Your task to perform on an android device: turn off notifications in google photos Image 0: 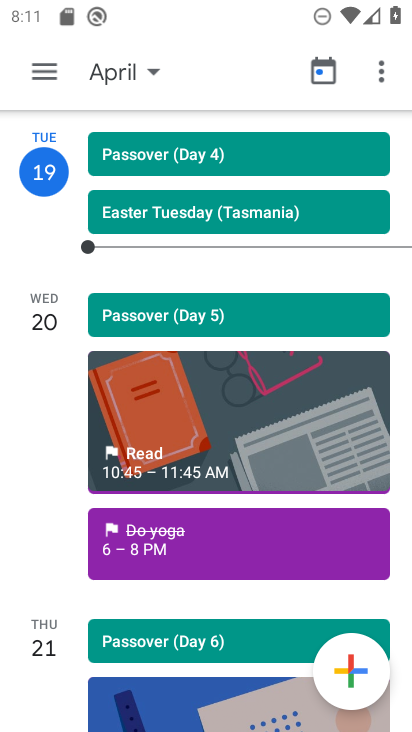
Step 0: press home button
Your task to perform on an android device: turn off notifications in google photos Image 1: 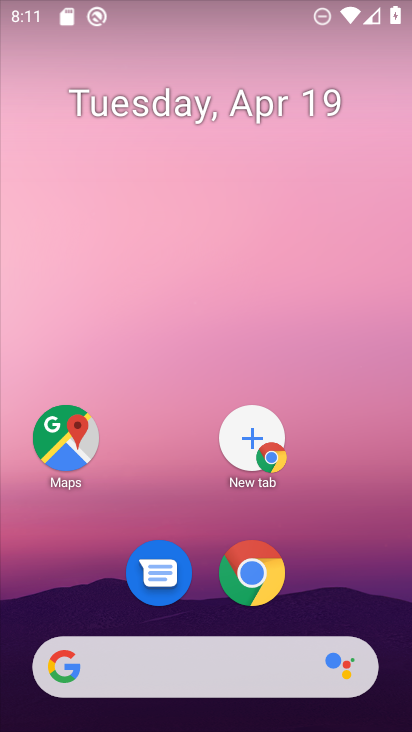
Step 1: drag from (198, 531) to (250, 95)
Your task to perform on an android device: turn off notifications in google photos Image 2: 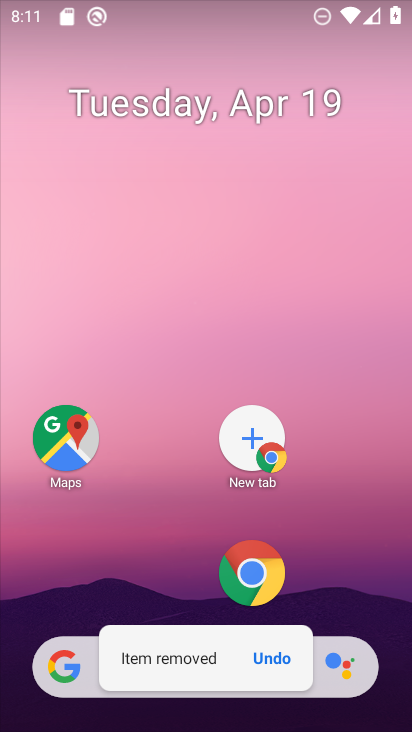
Step 2: drag from (137, 558) to (188, 27)
Your task to perform on an android device: turn off notifications in google photos Image 3: 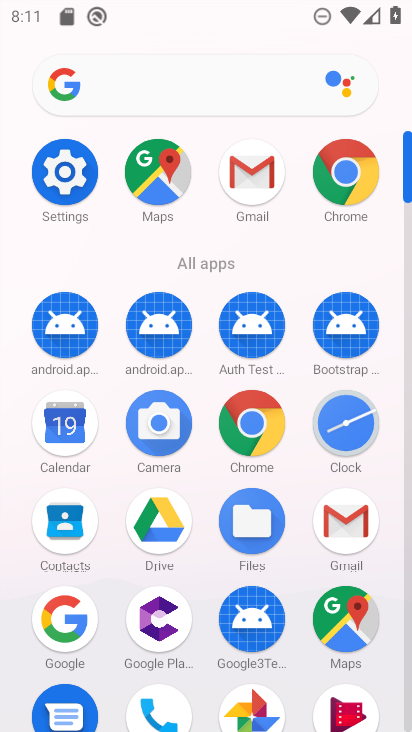
Step 3: drag from (234, 16) to (219, 411)
Your task to perform on an android device: turn off notifications in google photos Image 4: 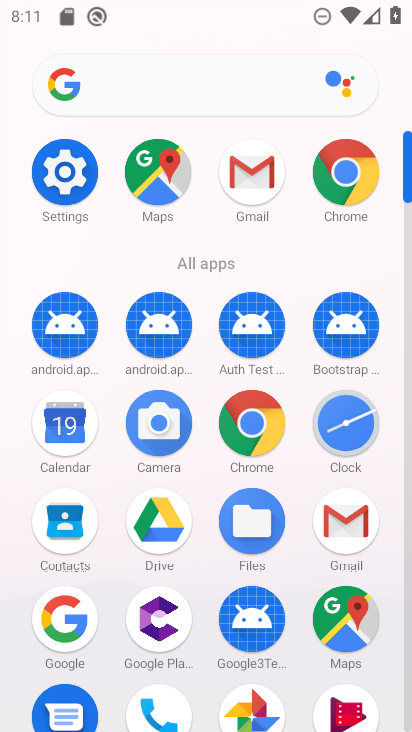
Step 4: drag from (204, 8) to (268, 366)
Your task to perform on an android device: turn off notifications in google photos Image 5: 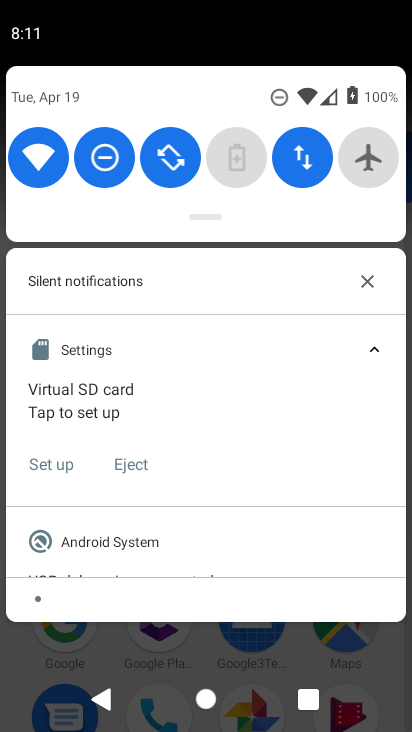
Step 5: drag from (238, 97) to (269, 237)
Your task to perform on an android device: turn off notifications in google photos Image 6: 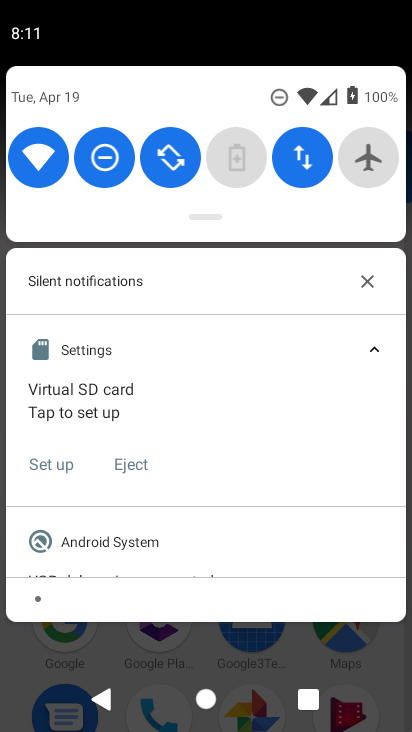
Step 6: drag from (205, 88) to (221, 554)
Your task to perform on an android device: turn off notifications in google photos Image 7: 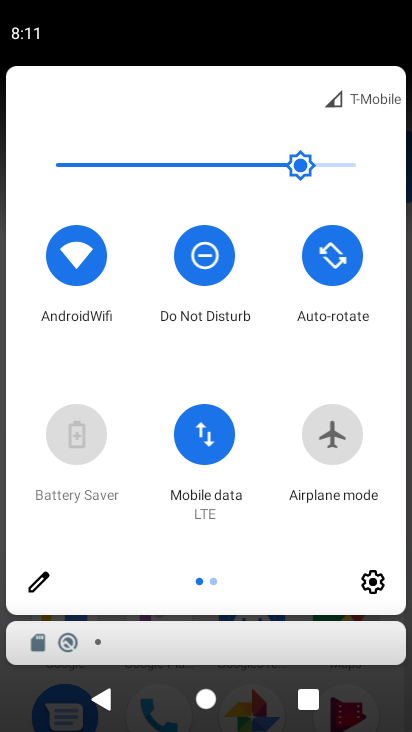
Step 7: click (390, 572)
Your task to perform on an android device: turn off notifications in google photos Image 8: 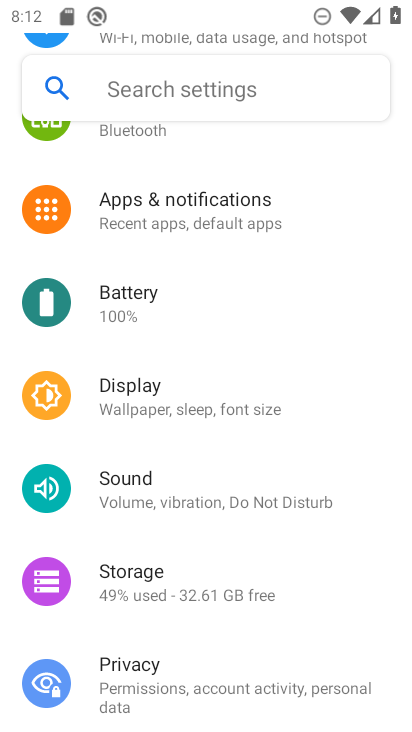
Step 8: click (191, 228)
Your task to perform on an android device: turn off notifications in google photos Image 9: 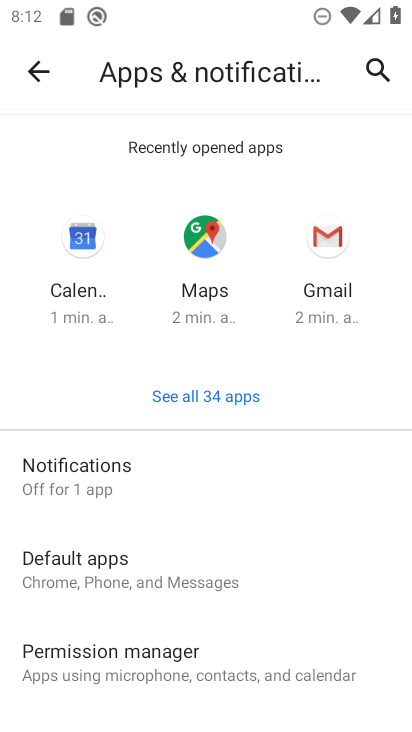
Step 9: click (165, 398)
Your task to perform on an android device: turn off notifications in google photos Image 10: 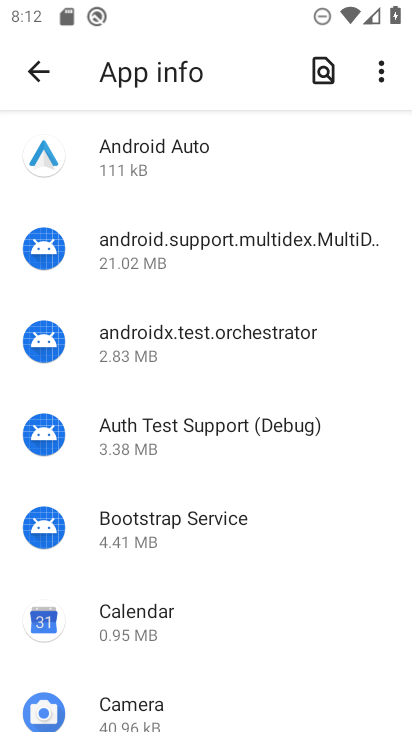
Step 10: drag from (288, 655) to (258, 107)
Your task to perform on an android device: turn off notifications in google photos Image 11: 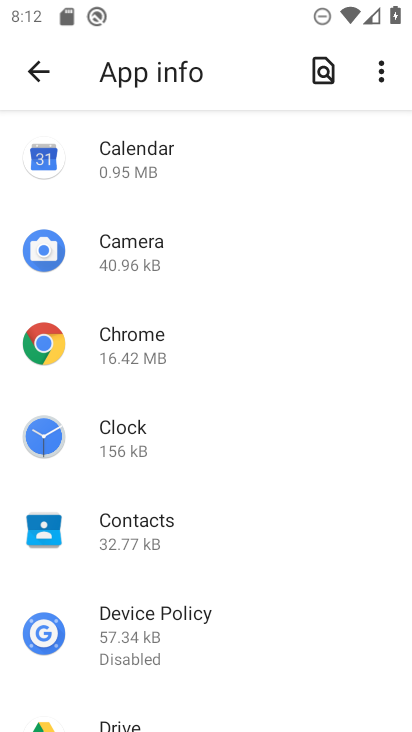
Step 11: drag from (304, 678) to (305, 194)
Your task to perform on an android device: turn off notifications in google photos Image 12: 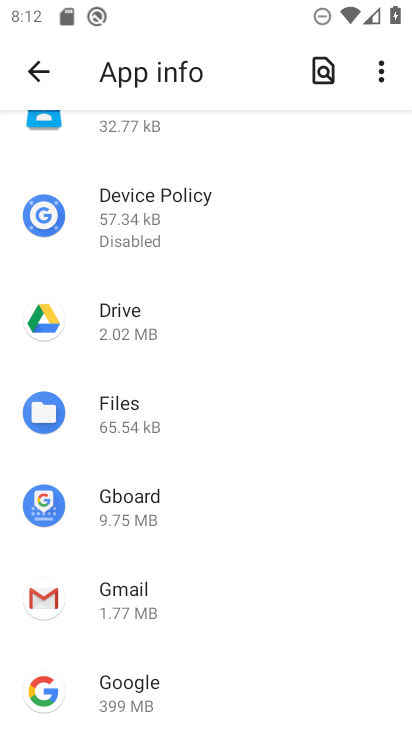
Step 12: drag from (218, 639) to (189, 123)
Your task to perform on an android device: turn off notifications in google photos Image 13: 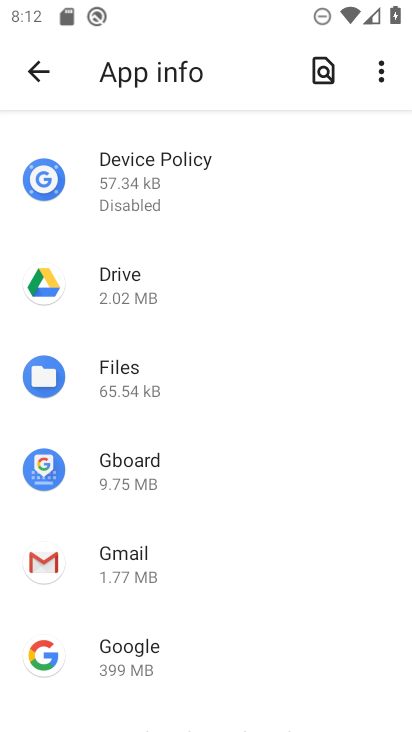
Step 13: drag from (258, 609) to (339, 184)
Your task to perform on an android device: turn off notifications in google photos Image 14: 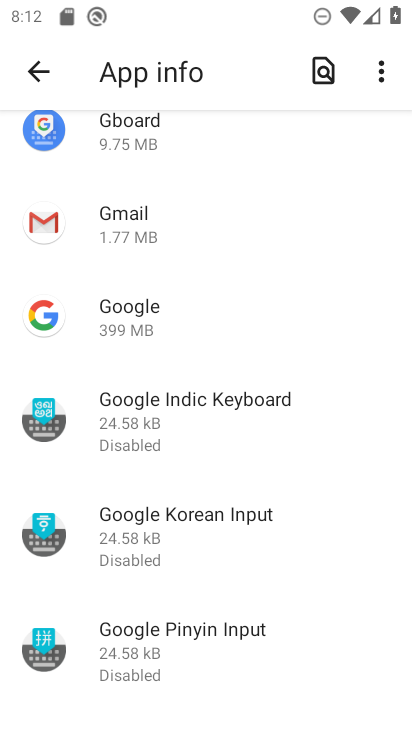
Step 14: drag from (205, 694) to (257, 263)
Your task to perform on an android device: turn off notifications in google photos Image 15: 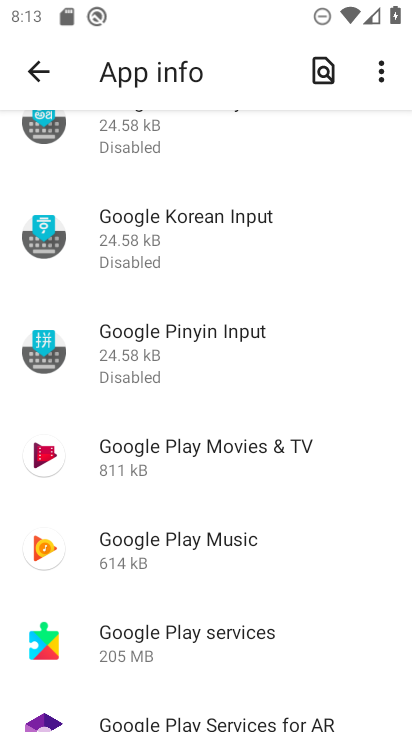
Step 15: drag from (205, 630) to (306, 211)
Your task to perform on an android device: turn off notifications in google photos Image 16: 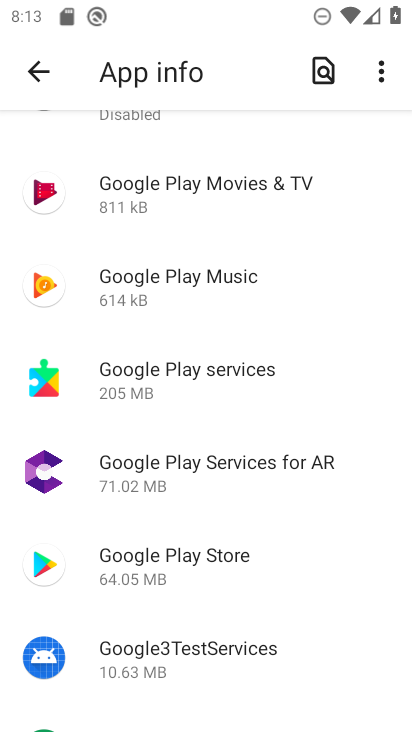
Step 16: drag from (230, 696) to (286, 167)
Your task to perform on an android device: turn off notifications in google photos Image 17: 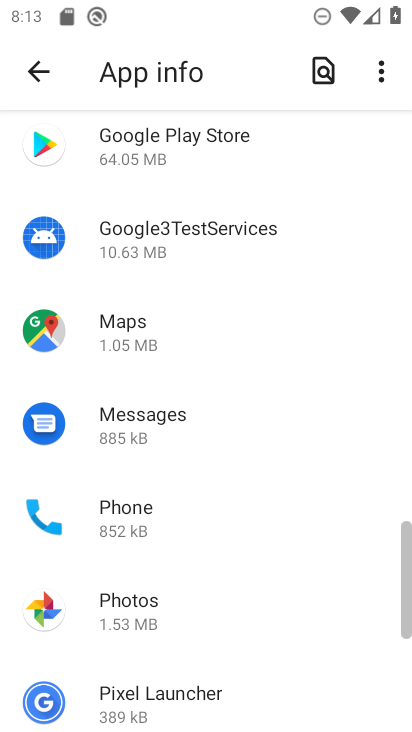
Step 17: click (118, 599)
Your task to perform on an android device: turn off notifications in google photos Image 18: 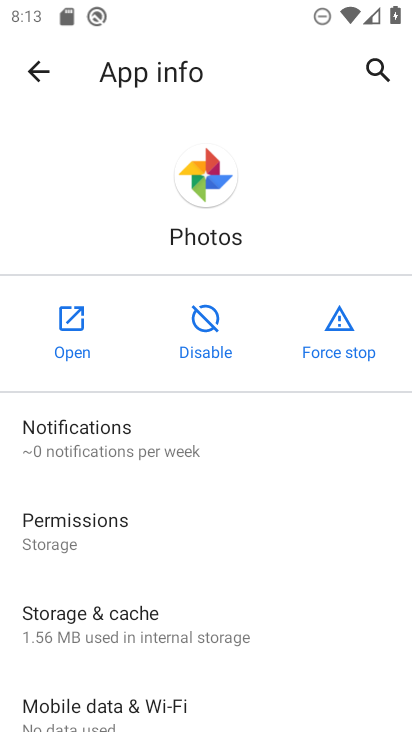
Step 18: click (180, 477)
Your task to perform on an android device: turn off notifications in google photos Image 19: 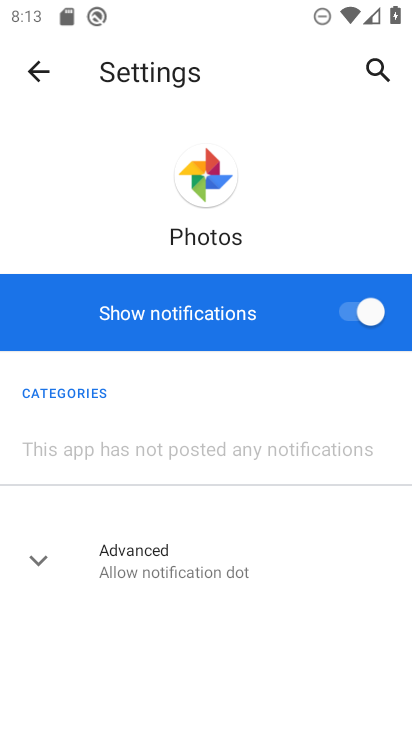
Step 19: click (361, 319)
Your task to perform on an android device: turn off notifications in google photos Image 20: 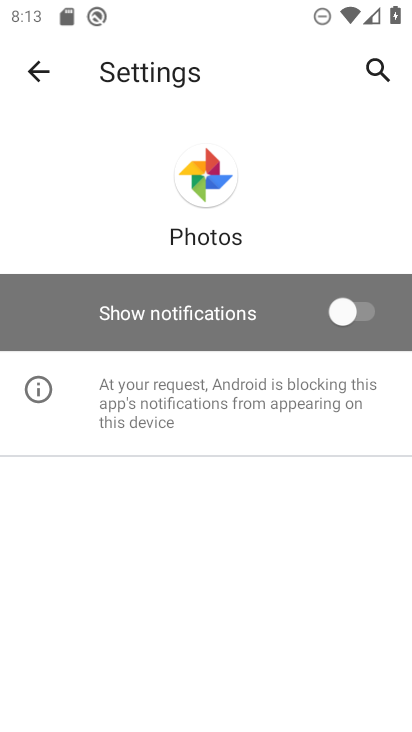
Step 20: task complete